Your task to perform on an android device: Go to internet settings Image 0: 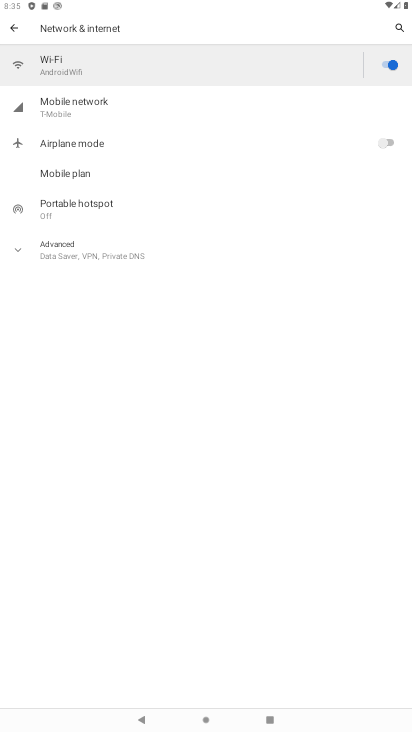
Step 0: task complete